Your task to perform on an android device: empty trash in the gmail app Image 0: 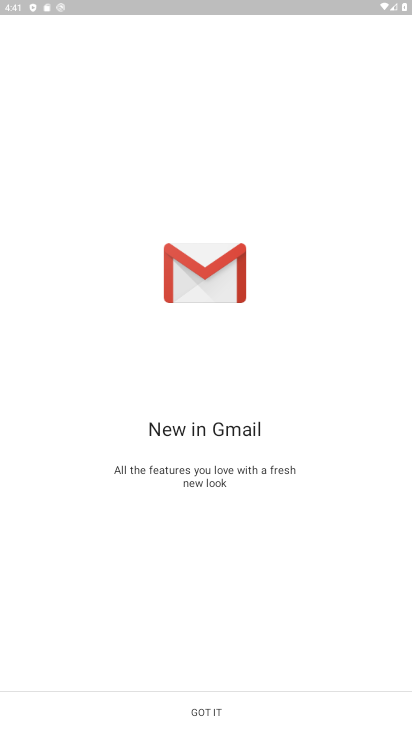
Step 0: click (205, 709)
Your task to perform on an android device: empty trash in the gmail app Image 1: 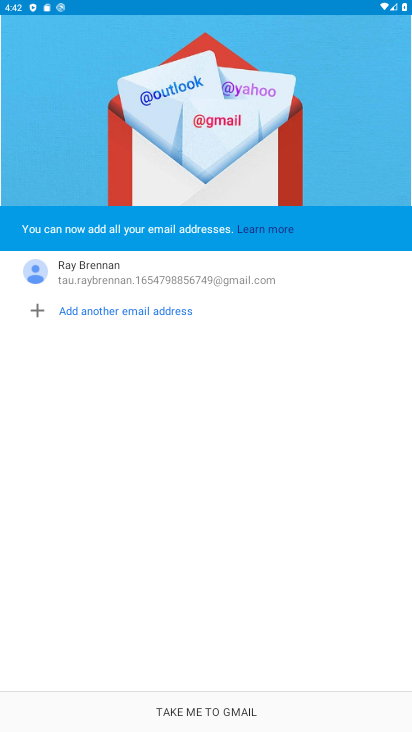
Step 1: click (216, 703)
Your task to perform on an android device: empty trash in the gmail app Image 2: 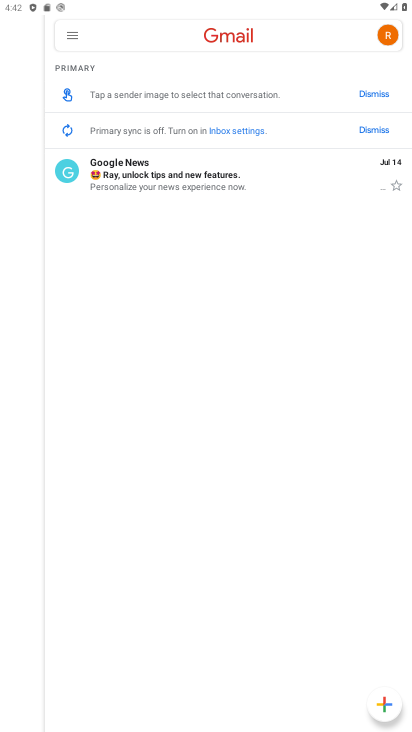
Step 2: click (65, 23)
Your task to perform on an android device: empty trash in the gmail app Image 3: 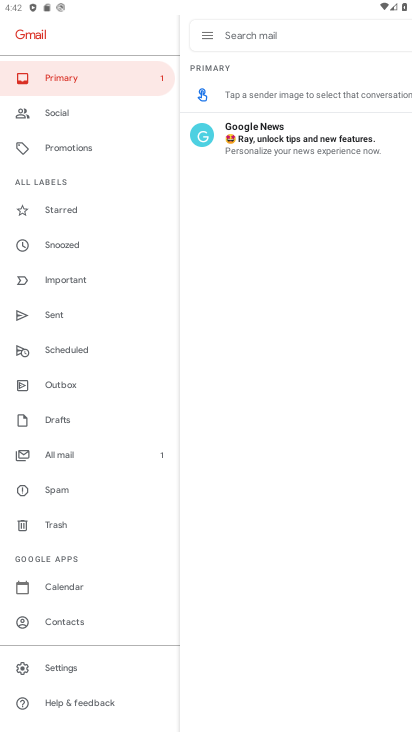
Step 3: click (61, 527)
Your task to perform on an android device: empty trash in the gmail app Image 4: 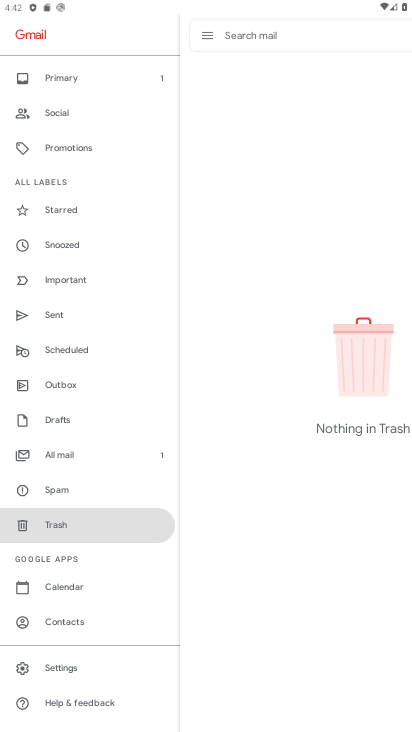
Step 4: task complete